Your task to perform on an android device: visit the assistant section in the google photos Image 0: 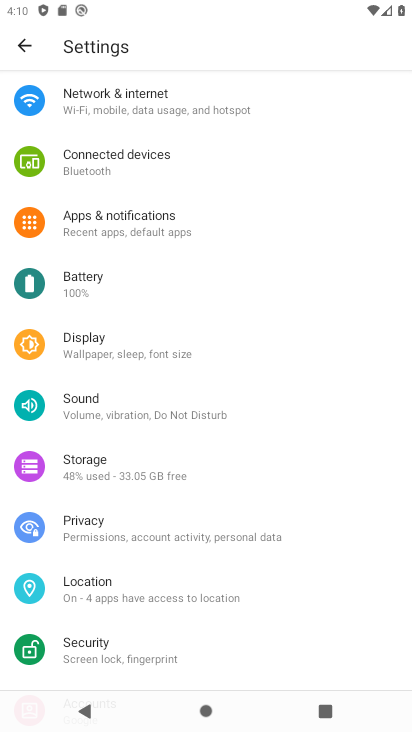
Step 0: press home button
Your task to perform on an android device: visit the assistant section in the google photos Image 1: 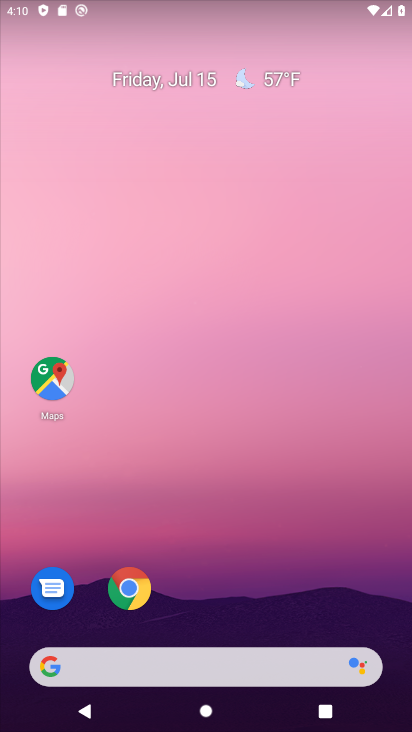
Step 1: drag from (199, 658) to (229, 193)
Your task to perform on an android device: visit the assistant section in the google photos Image 2: 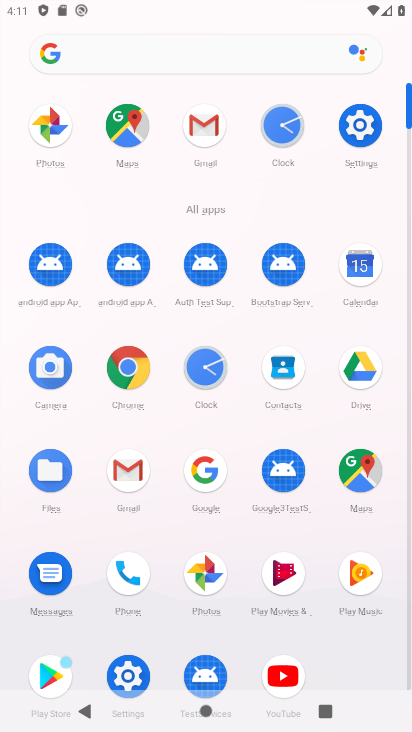
Step 2: click (205, 574)
Your task to perform on an android device: visit the assistant section in the google photos Image 3: 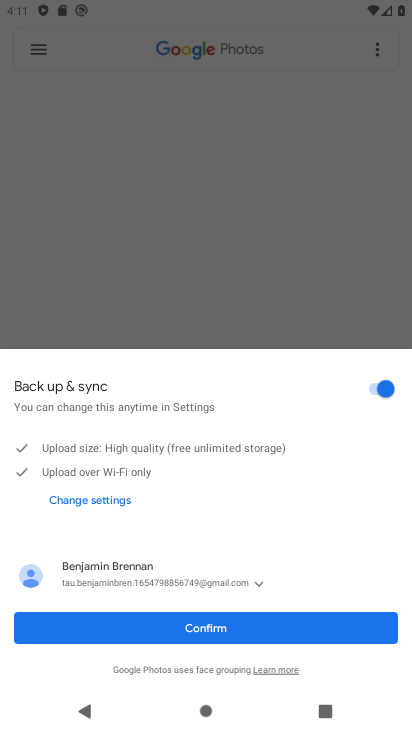
Step 3: click (209, 633)
Your task to perform on an android device: visit the assistant section in the google photos Image 4: 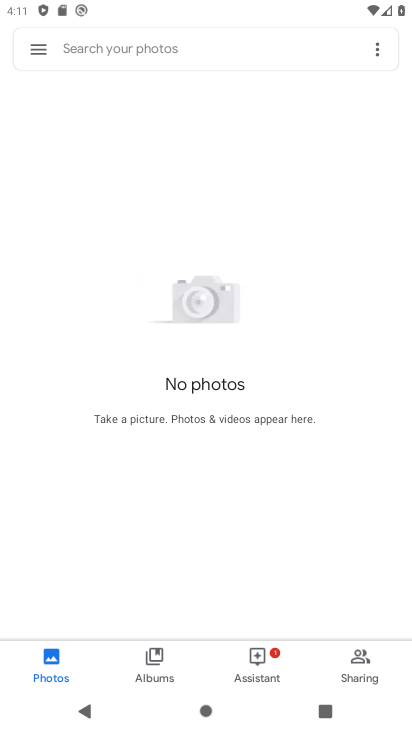
Step 4: click (255, 654)
Your task to perform on an android device: visit the assistant section in the google photos Image 5: 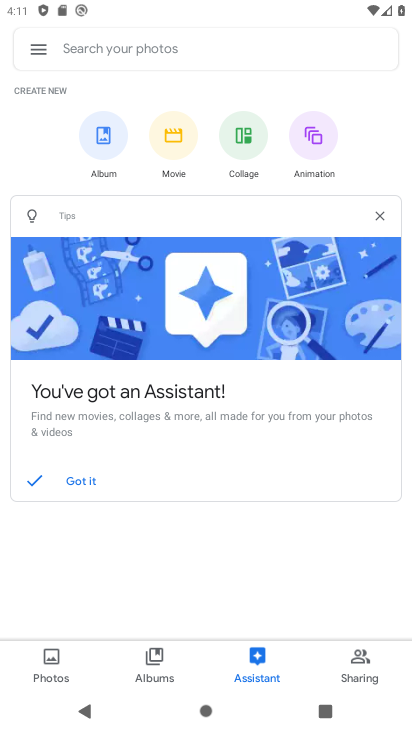
Step 5: task complete